Your task to perform on an android device: When is my next meeting? Image 0: 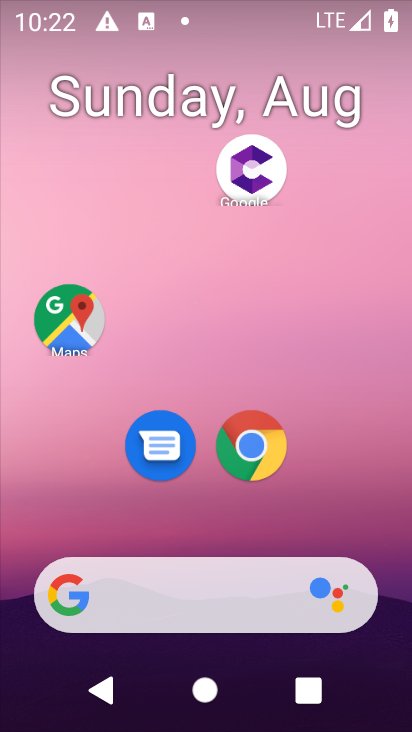
Step 0: press home button
Your task to perform on an android device: When is my next meeting? Image 1: 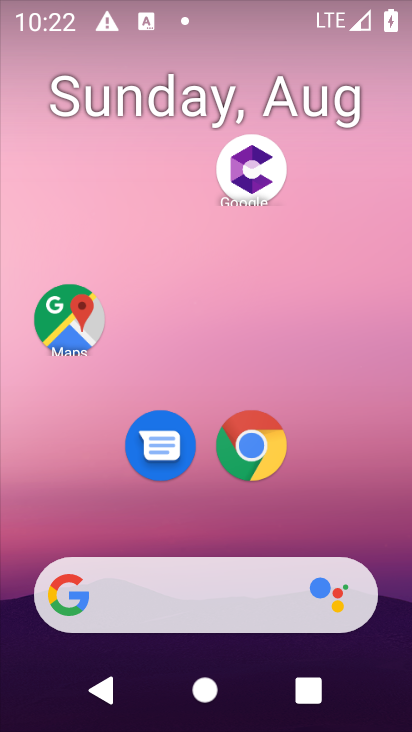
Step 1: drag from (210, 523) to (232, 76)
Your task to perform on an android device: When is my next meeting? Image 2: 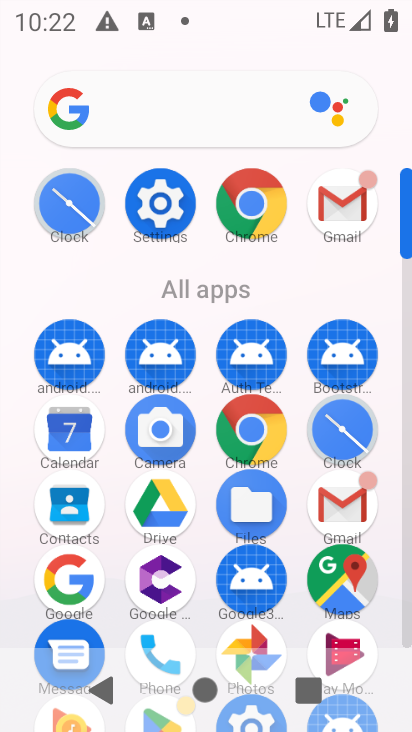
Step 2: click (71, 424)
Your task to perform on an android device: When is my next meeting? Image 3: 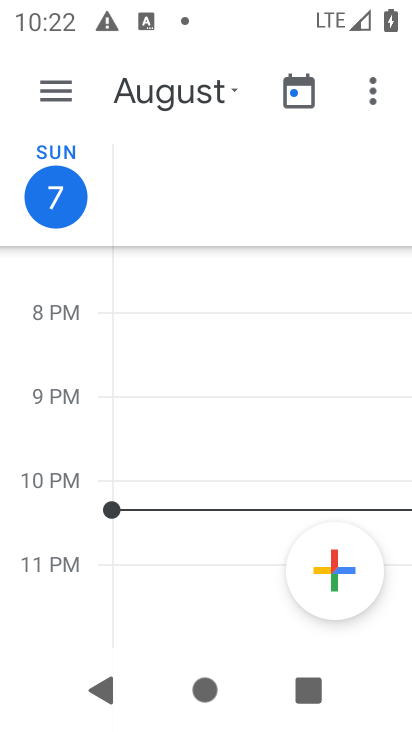
Step 3: click (47, 81)
Your task to perform on an android device: When is my next meeting? Image 4: 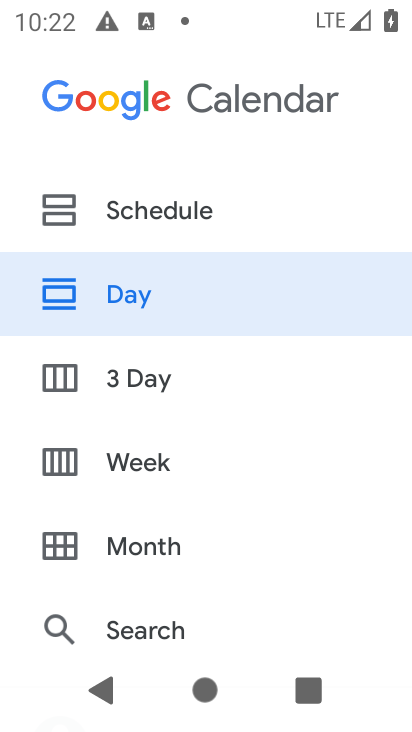
Step 4: click (92, 464)
Your task to perform on an android device: When is my next meeting? Image 5: 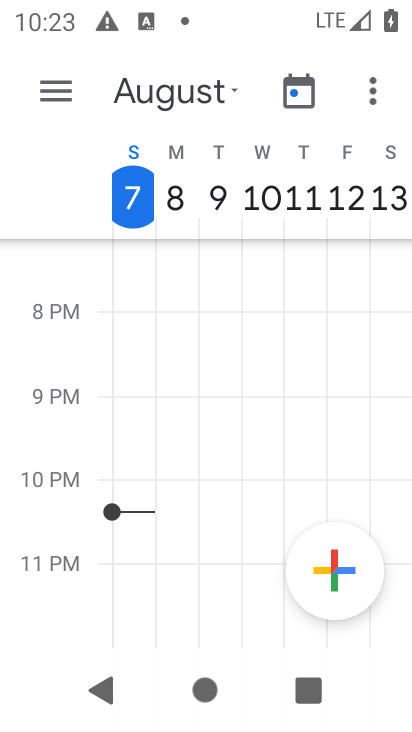
Step 5: click (223, 86)
Your task to perform on an android device: When is my next meeting? Image 6: 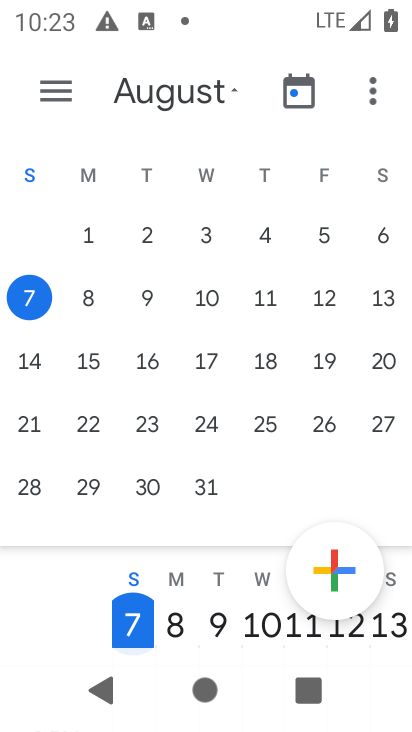
Step 6: click (222, 87)
Your task to perform on an android device: When is my next meeting? Image 7: 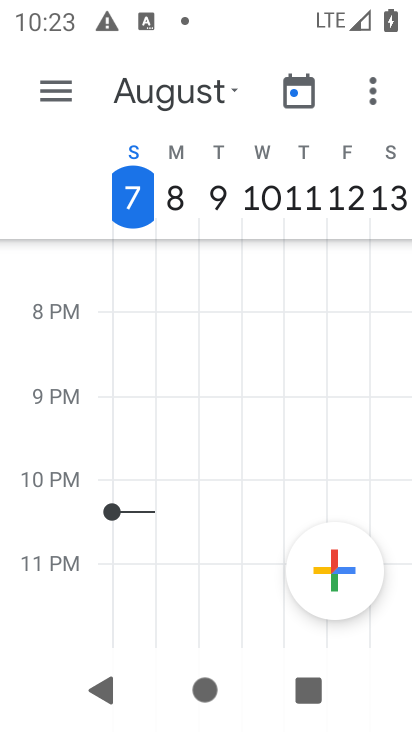
Step 7: click (134, 198)
Your task to perform on an android device: When is my next meeting? Image 8: 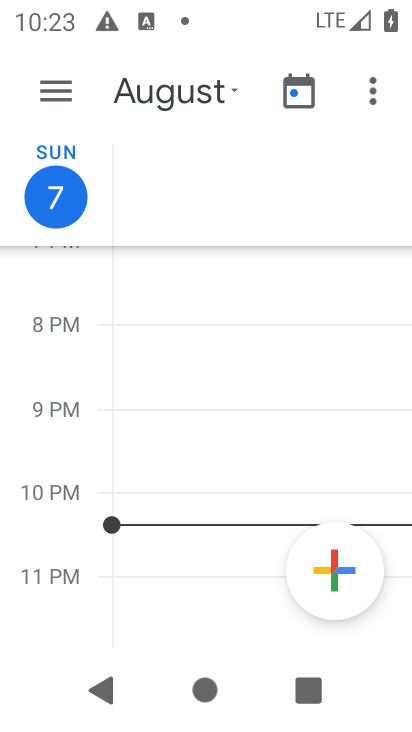
Step 8: click (79, 197)
Your task to perform on an android device: When is my next meeting? Image 9: 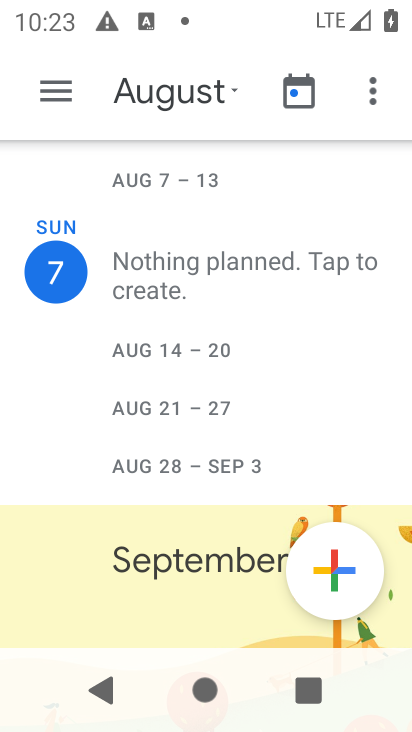
Step 9: task complete